Your task to perform on an android device: Empty the shopping cart on walmart. Add "razer blackwidow" to the cart on walmart Image 0: 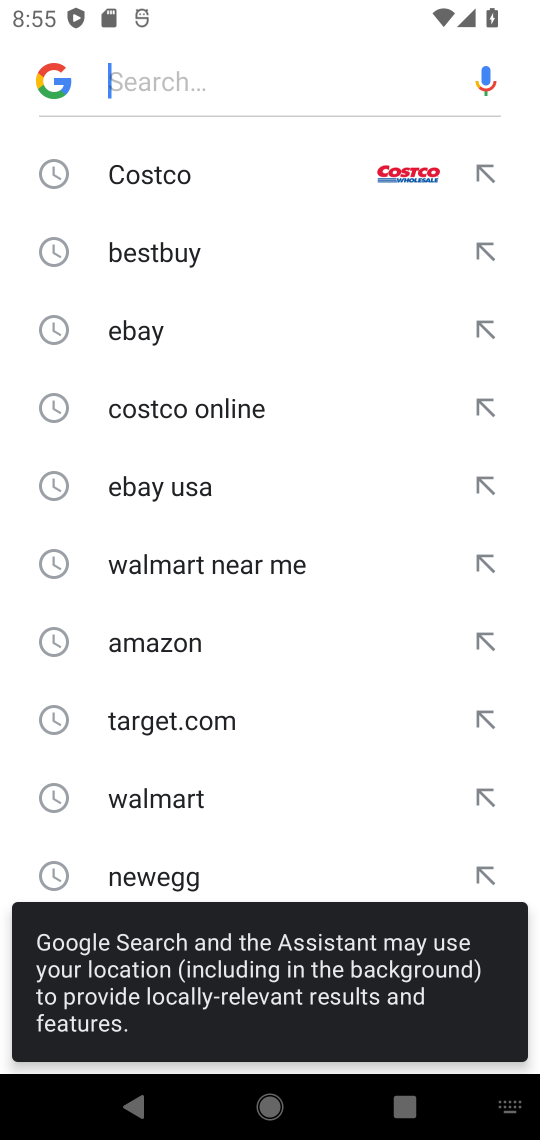
Step 0: press home button
Your task to perform on an android device: Empty the shopping cart on walmart. Add "razer blackwidow" to the cart on walmart Image 1: 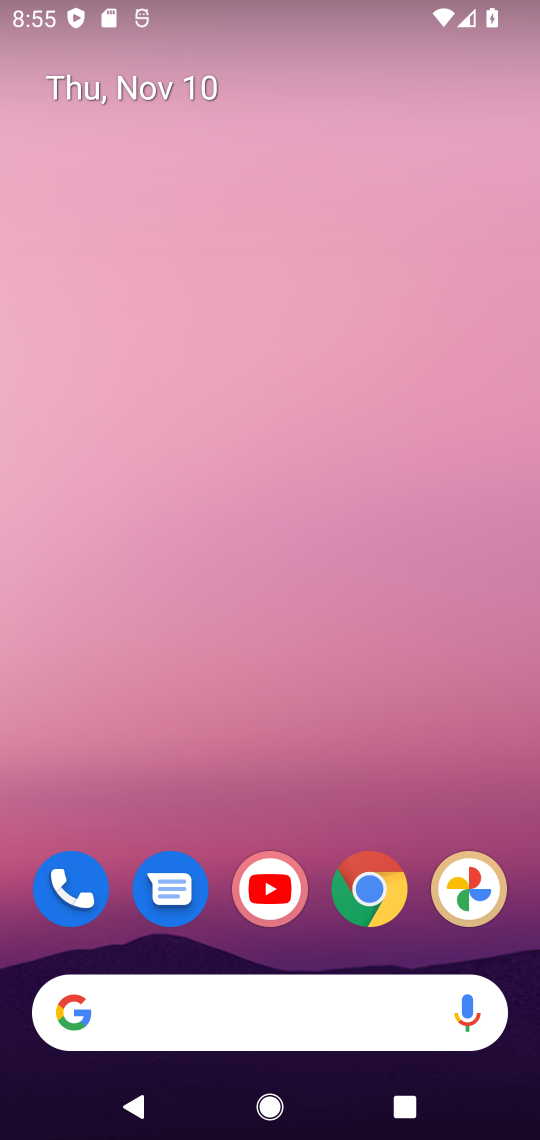
Step 1: click (370, 885)
Your task to perform on an android device: Empty the shopping cart on walmart. Add "razer blackwidow" to the cart on walmart Image 2: 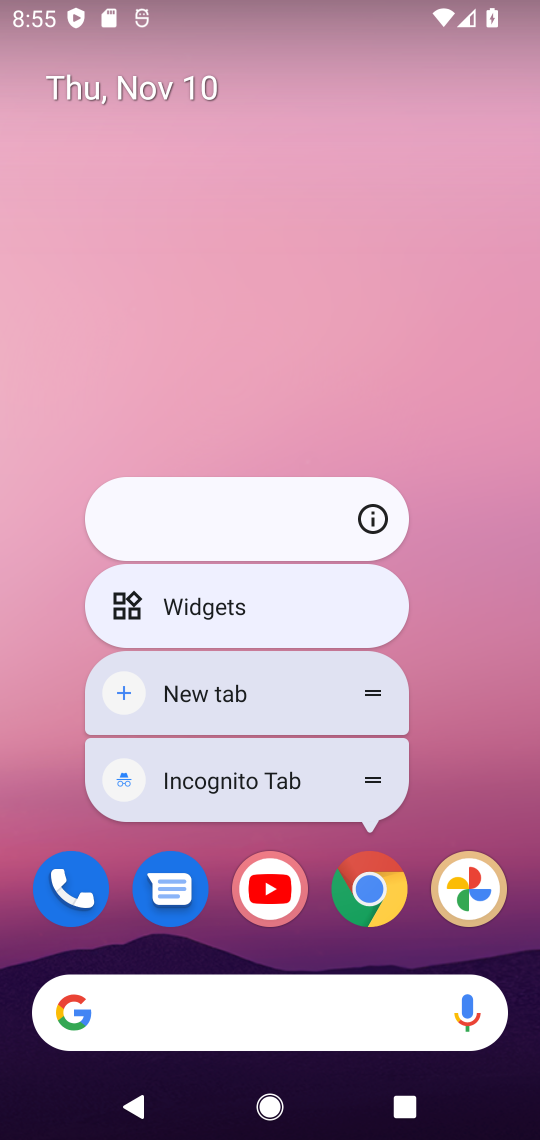
Step 2: click (363, 890)
Your task to perform on an android device: Empty the shopping cart on walmart. Add "razer blackwidow" to the cart on walmart Image 3: 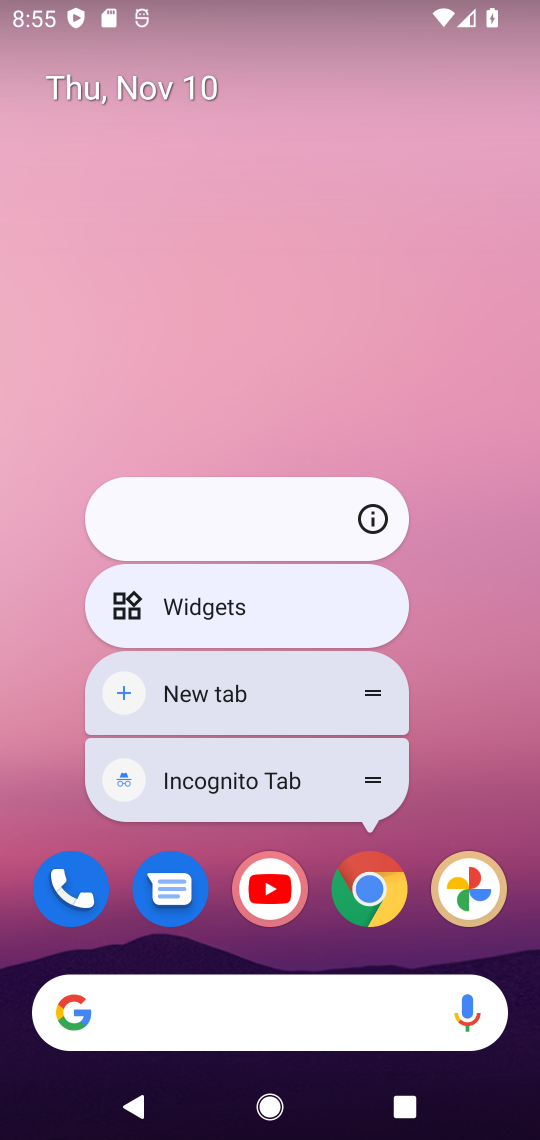
Step 3: click (364, 889)
Your task to perform on an android device: Empty the shopping cart on walmart. Add "razer blackwidow" to the cart on walmart Image 4: 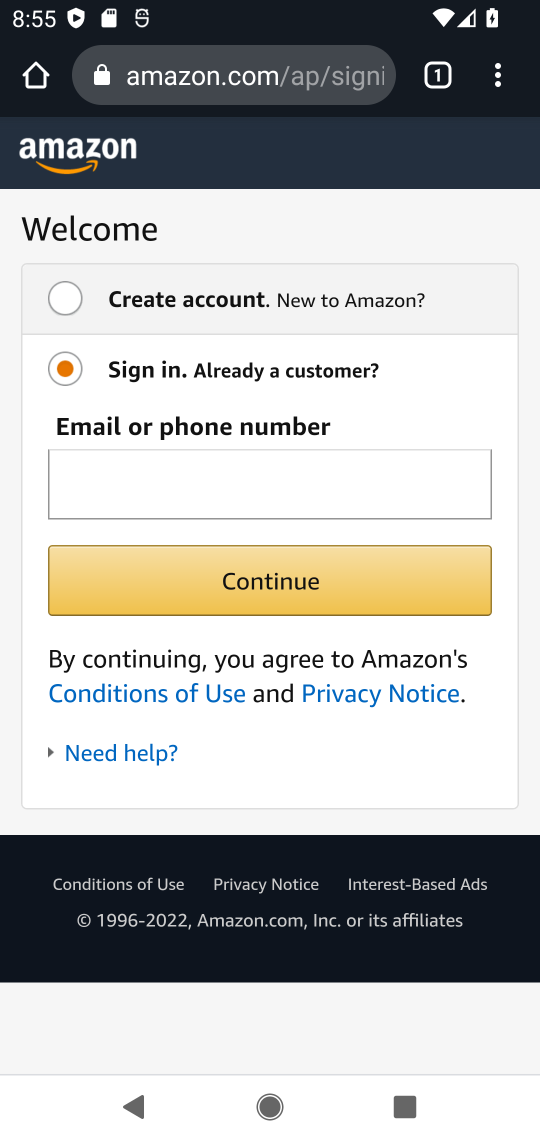
Step 4: click (332, 84)
Your task to perform on an android device: Empty the shopping cart on walmart. Add "razer blackwidow" to the cart on walmart Image 5: 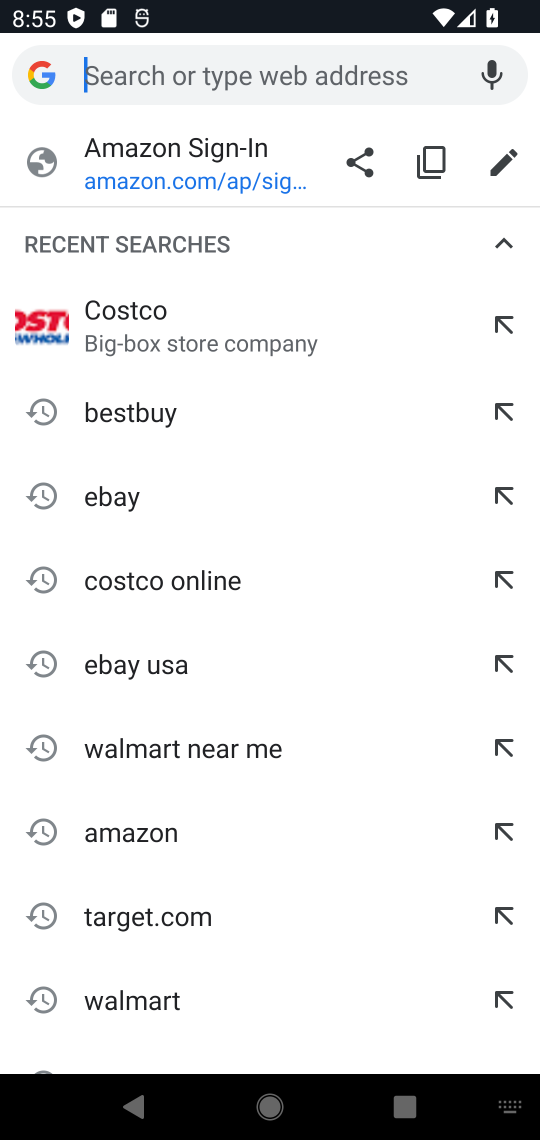
Step 5: click (109, 1004)
Your task to perform on an android device: Empty the shopping cart on walmart. Add "razer blackwidow" to the cart on walmart Image 6: 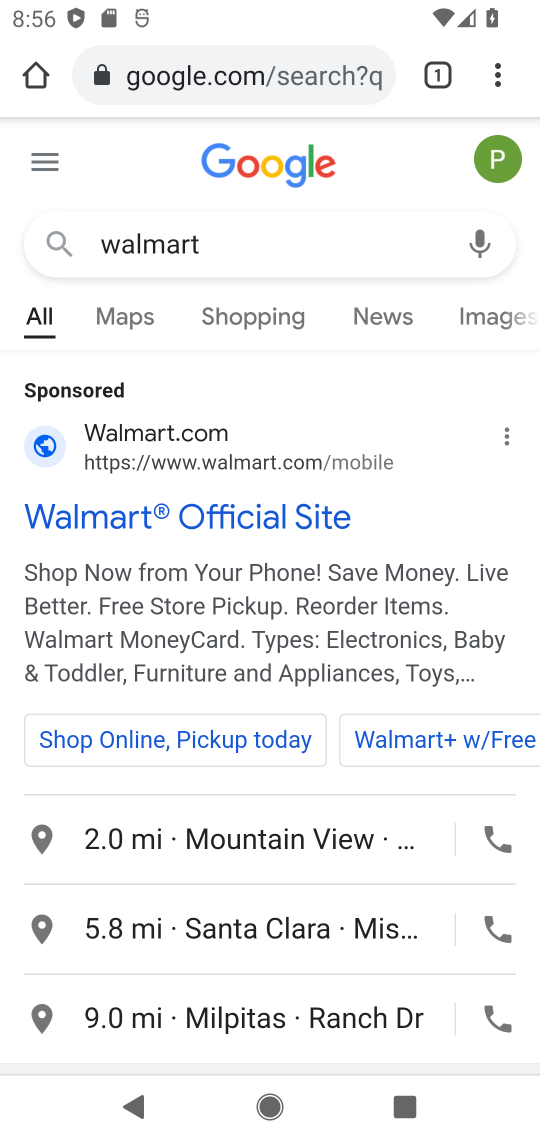
Step 6: drag from (235, 894) to (403, 390)
Your task to perform on an android device: Empty the shopping cart on walmart. Add "razer blackwidow" to the cart on walmart Image 7: 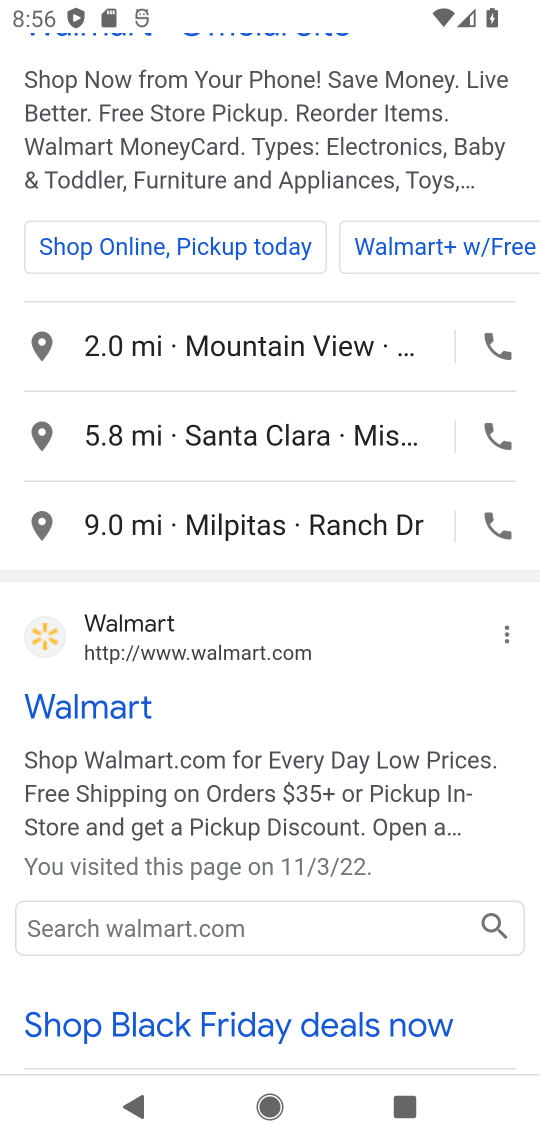
Step 7: click (103, 700)
Your task to perform on an android device: Empty the shopping cart on walmart. Add "razer blackwidow" to the cart on walmart Image 8: 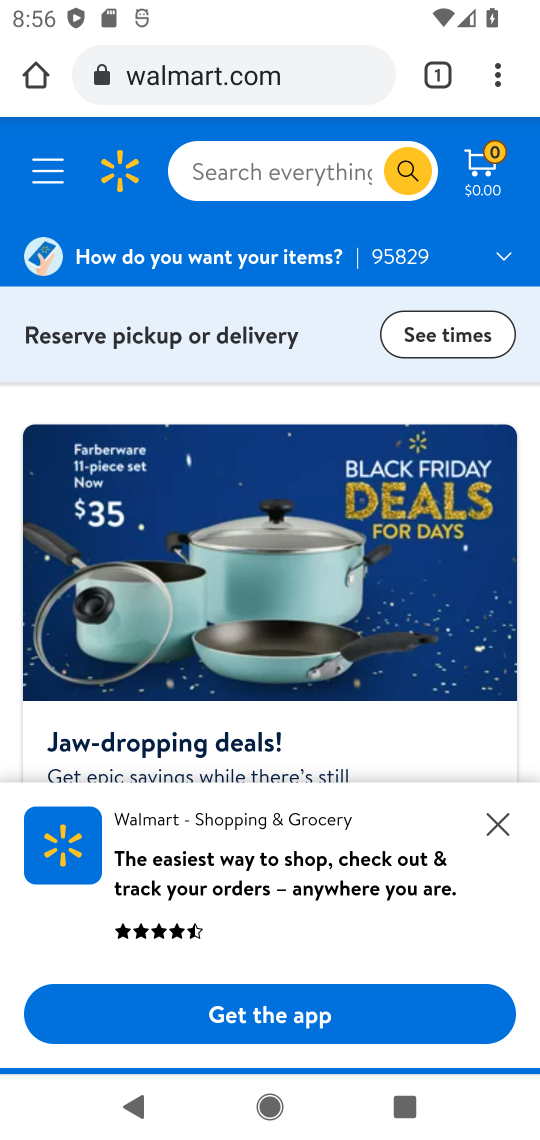
Step 8: click (321, 171)
Your task to perform on an android device: Empty the shopping cart on walmart. Add "razer blackwidow" to the cart on walmart Image 9: 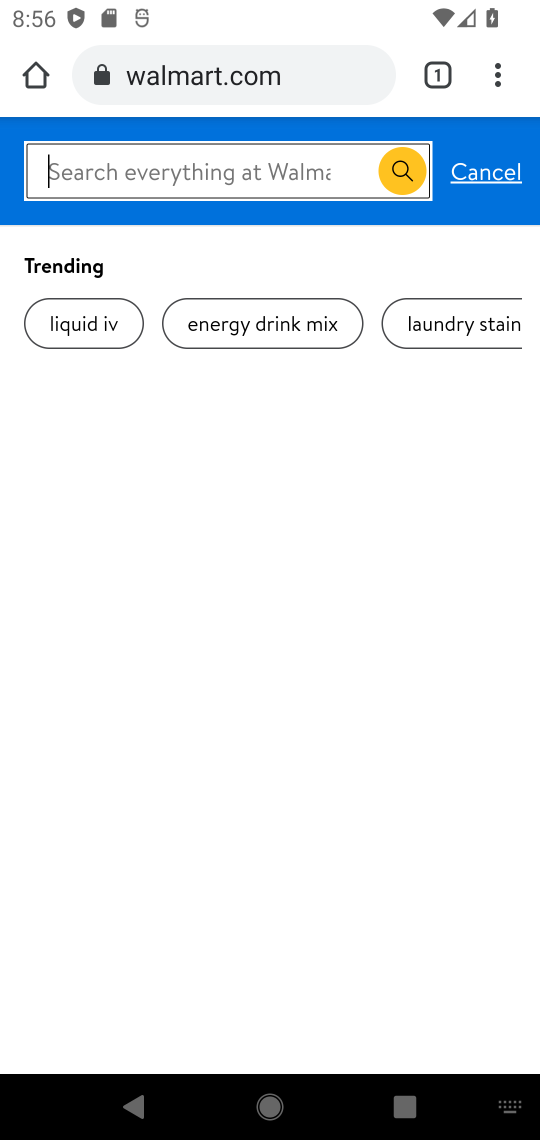
Step 9: type "razer blackwidow"
Your task to perform on an android device: Empty the shopping cart on walmart. Add "razer blackwidow" to the cart on walmart Image 10: 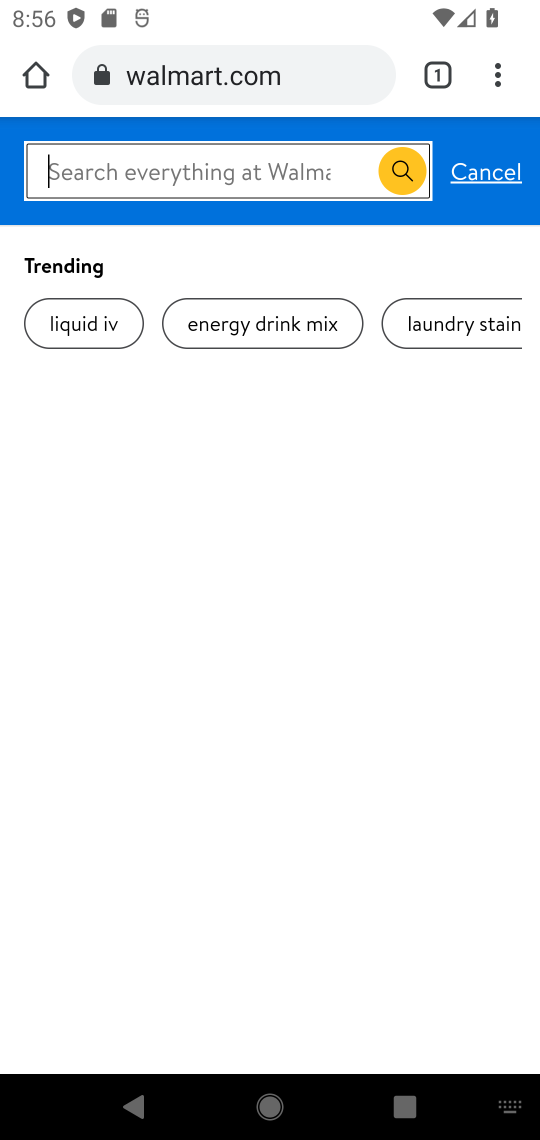
Step 10: press enter
Your task to perform on an android device: Empty the shopping cart on walmart. Add "razer blackwidow" to the cart on walmart Image 11: 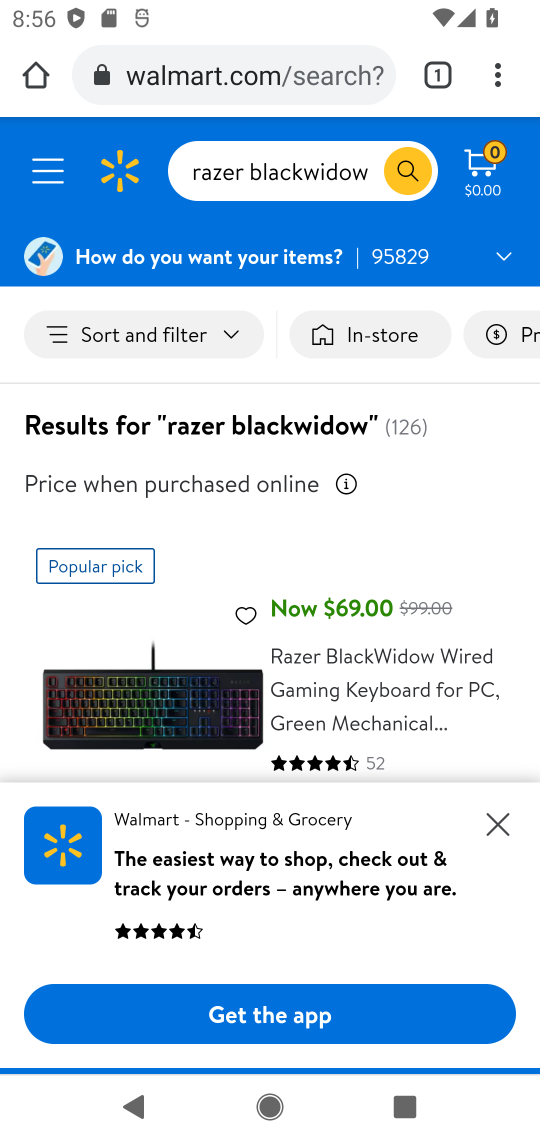
Step 11: click (495, 824)
Your task to perform on an android device: Empty the shopping cart on walmart. Add "razer blackwidow" to the cart on walmart Image 12: 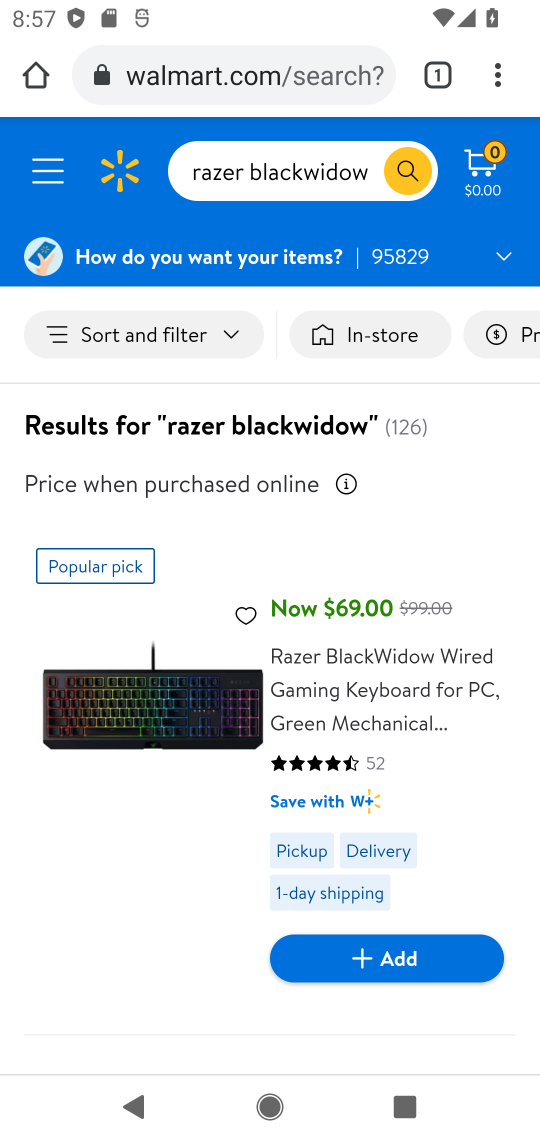
Step 12: click (397, 951)
Your task to perform on an android device: Empty the shopping cart on walmart. Add "razer blackwidow" to the cart on walmart Image 13: 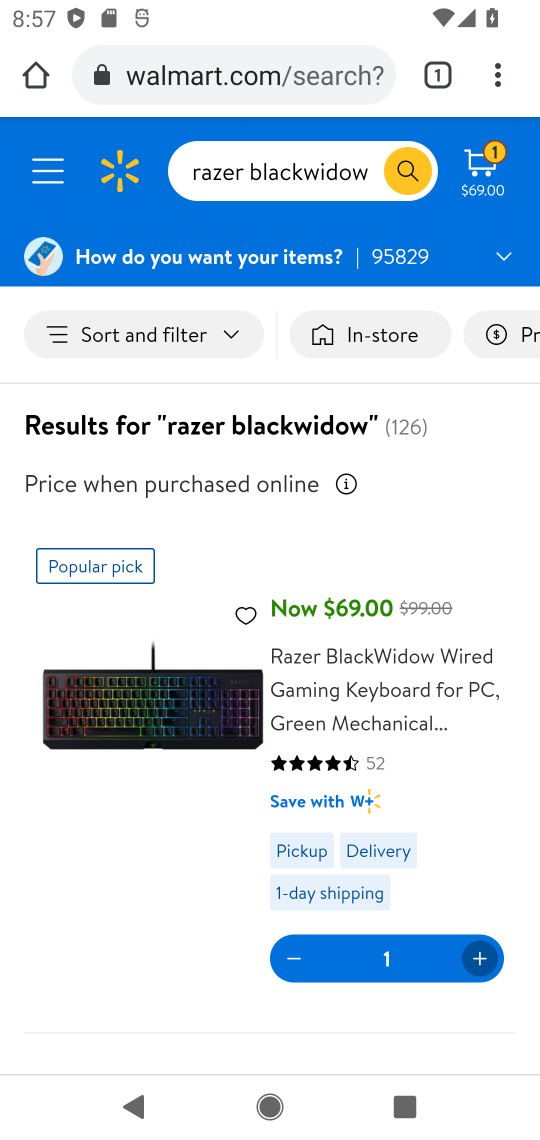
Step 13: task complete